Your task to perform on an android device: Open maps Image 0: 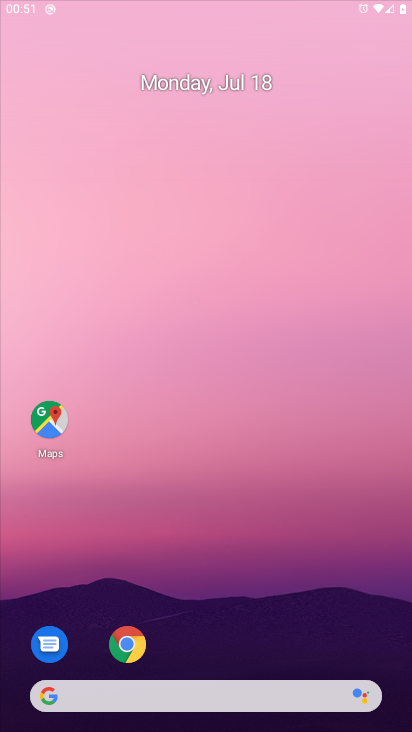
Step 0: press home button
Your task to perform on an android device: Open maps Image 1: 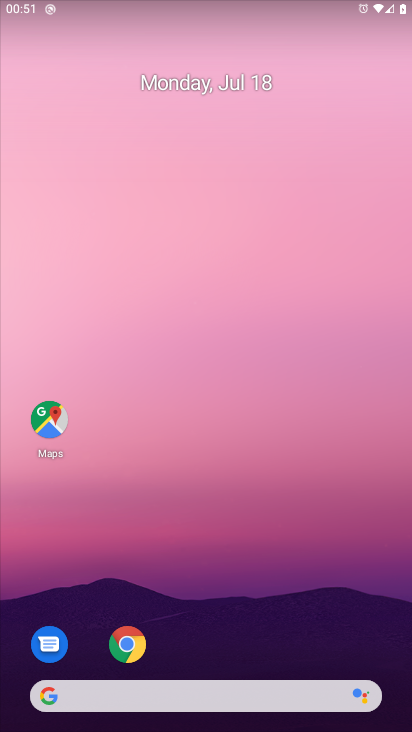
Step 1: press home button
Your task to perform on an android device: Open maps Image 2: 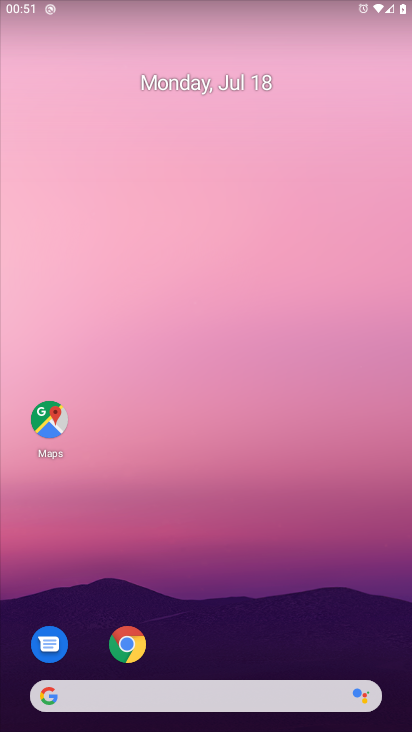
Step 2: click (45, 422)
Your task to perform on an android device: Open maps Image 3: 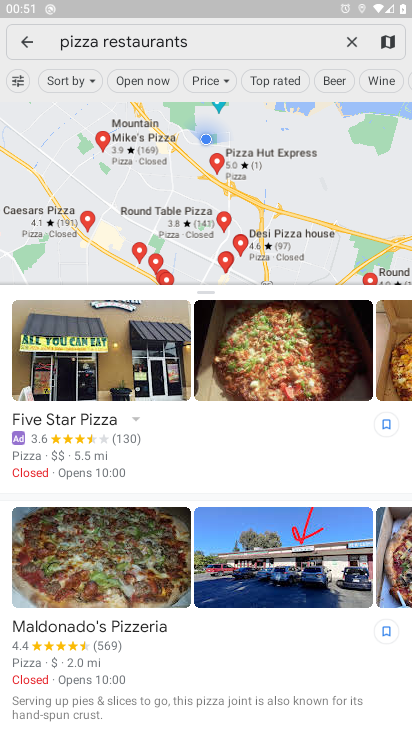
Step 3: click (17, 45)
Your task to perform on an android device: Open maps Image 4: 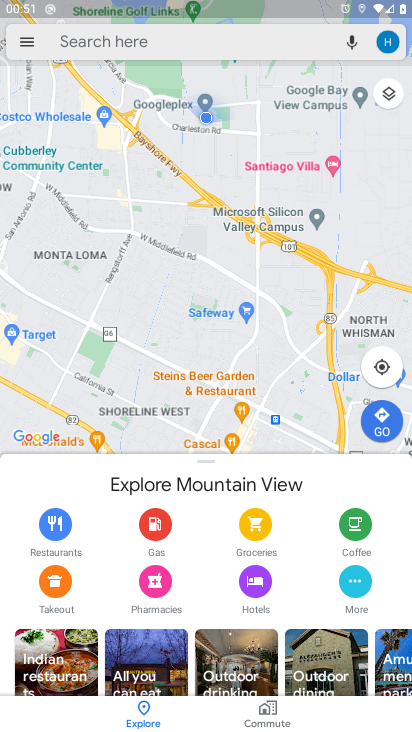
Step 4: task complete